Your task to perform on an android device: delete browsing data in the chrome app Image 0: 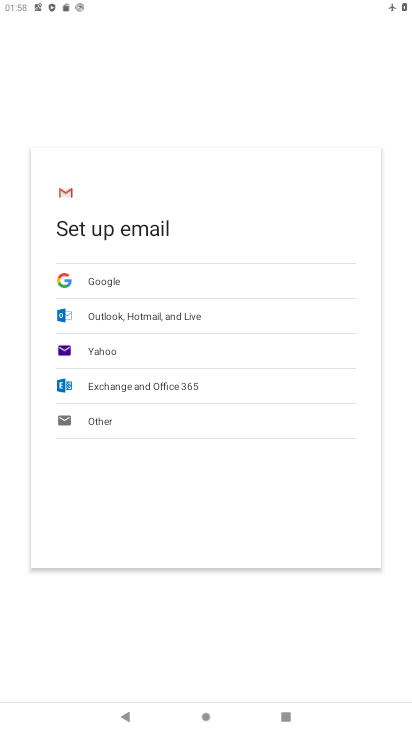
Step 0: press home button
Your task to perform on an android device: delete browsing data in the chrome app Image 1: 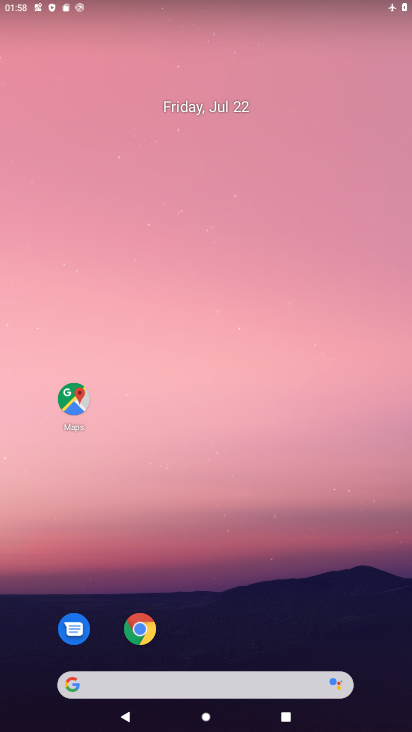
Step 1: click (149, 619)
Your task to perform on an android device: delete browsing data in the chrome app Image 2: 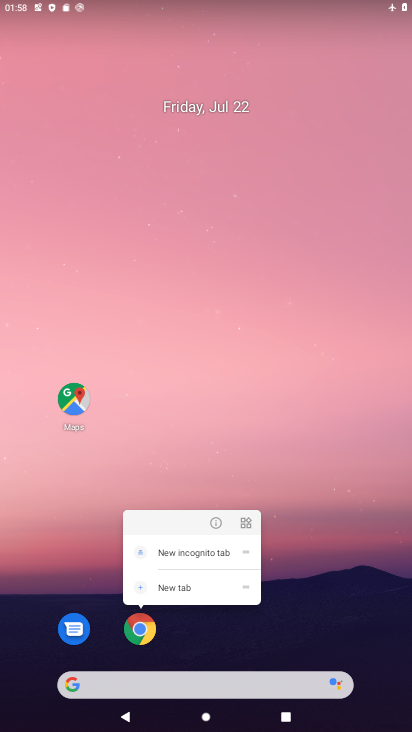
Step 2: click (139, 619)
Your task to perform on an android device: delete browsing data in the chrome app Image 3: 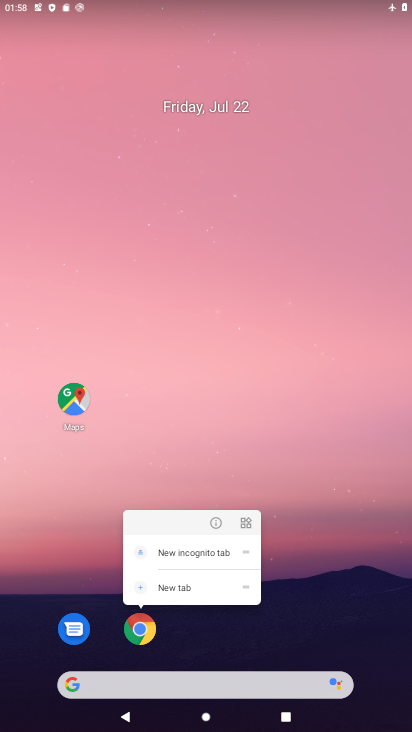
Step 3: click (139, 625)
Your task to perform on an android device: delete browsing data in the chrome app Image 4: 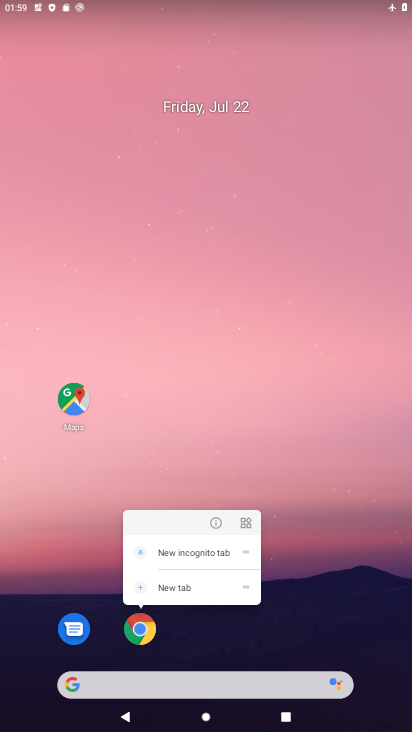
Step 4: click (143, 625)
Your task to perform on an android device: delete browsing data in the chrome app Image 5: 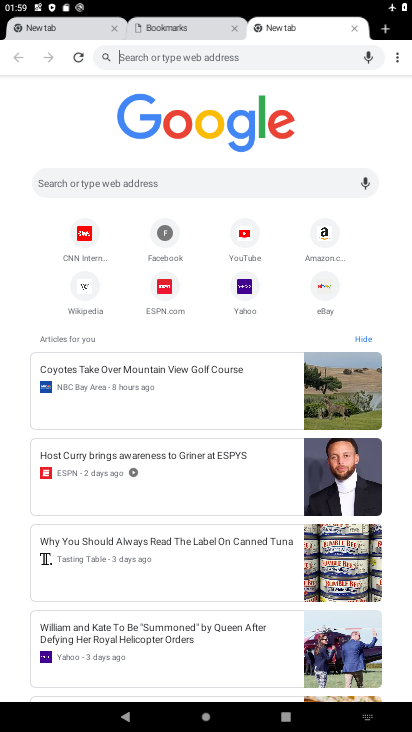
Step 5: click (391, 51)
Your task to perform on an android device: delete browsing data in the chrome app Image 6: 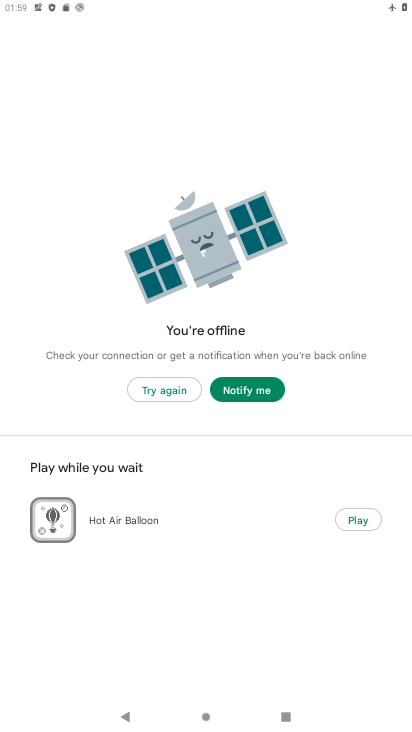
Step 6: drag from (310, 1) to (283, 311)
Your task to perform on an android device: delete browsing data in the chrome app Image 7: 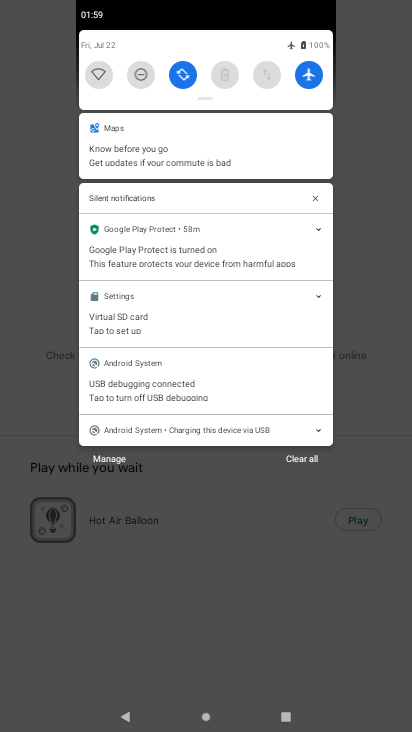
Step 7: click (306, 78)
Your task to perform on an android device: delete browsing data in the chrome app Image 8: 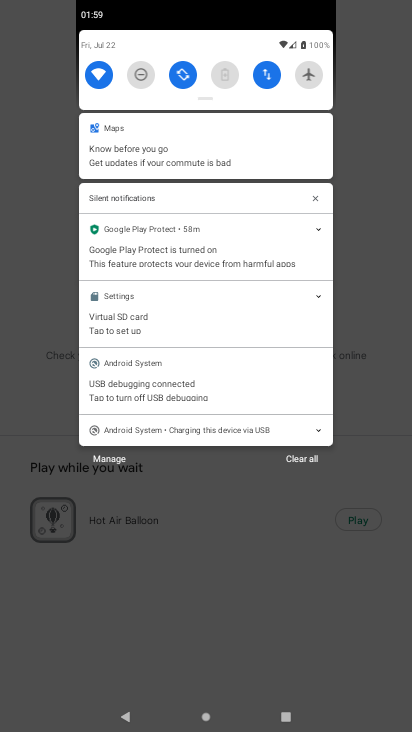
Step 8: task complete